Your task to perform on an android device: Is it going to rain tomorrow? Image 0: 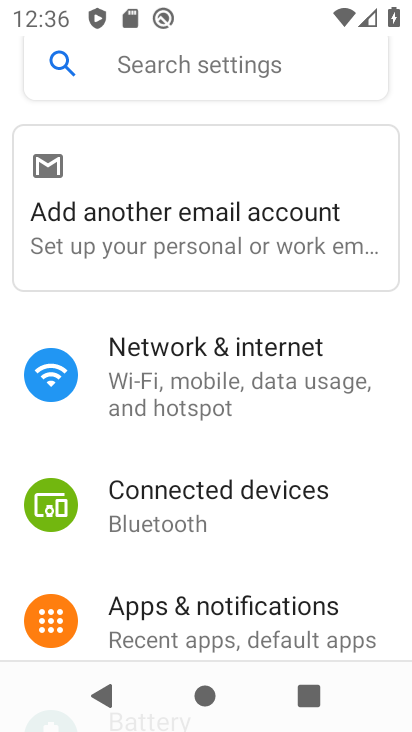
Step 0: press home button
Your task to perform on an android device: Is it going to rain tomorrow? Image 1: 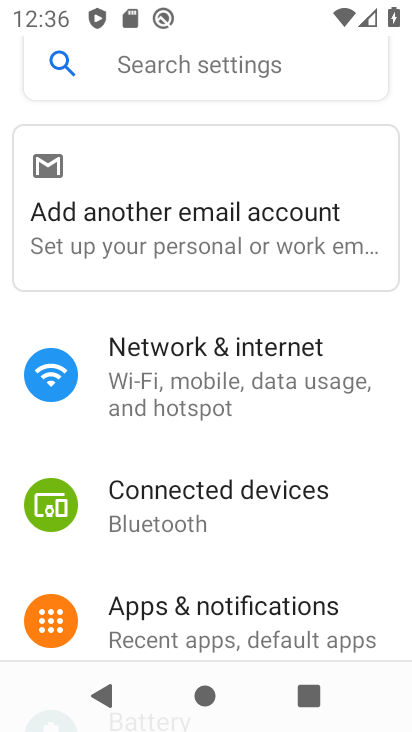
Step 1: press home button
Your task to perform on an android device: Is it going to rain tomorrow? Image 2: 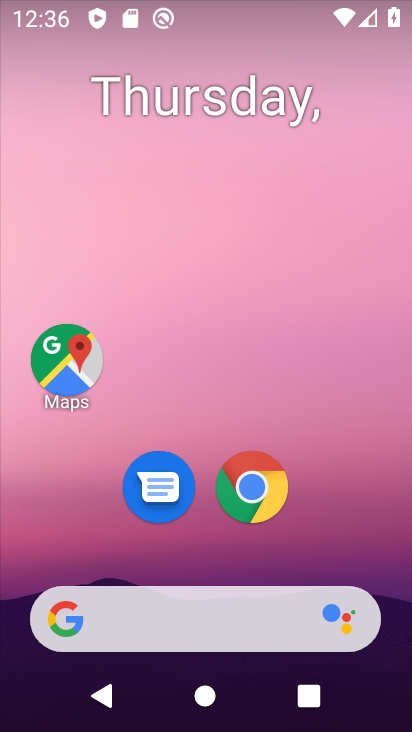
Step 2: click (252, 509)
Your task to perform on an android device: Is it going to rain tomorrow? Image 3: 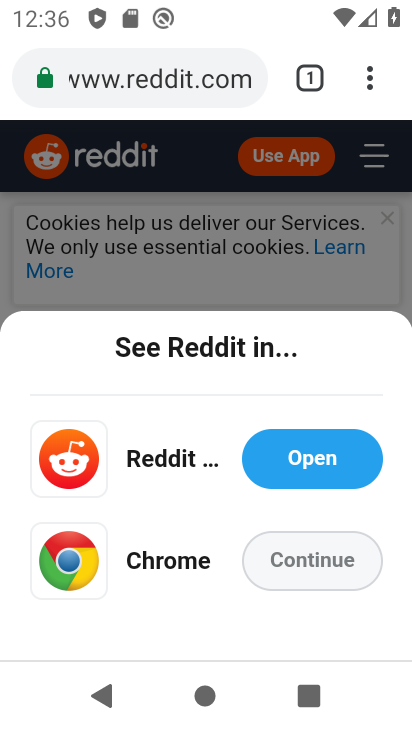
Step 3: click (187, 81)
Your task to perform on an android device: Is it going to rain tomorrow? Image 4: 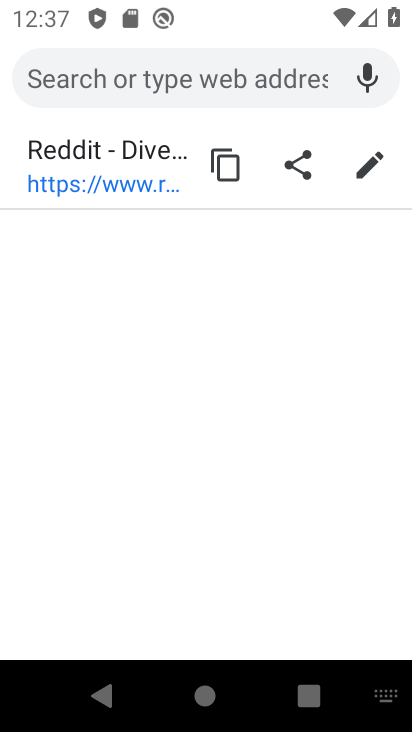
Step 4: click (185, 89)
Your task to perform on an android device: Is it going to rain tomorrow? Image 5: 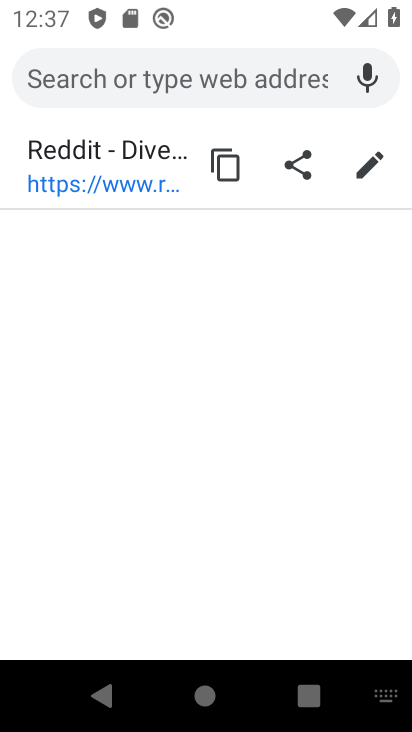
Step 5: type "Is it going to rain tomorrow?"
Your task to perform on an android device: Is it going to rain tomorrow? Image 6: 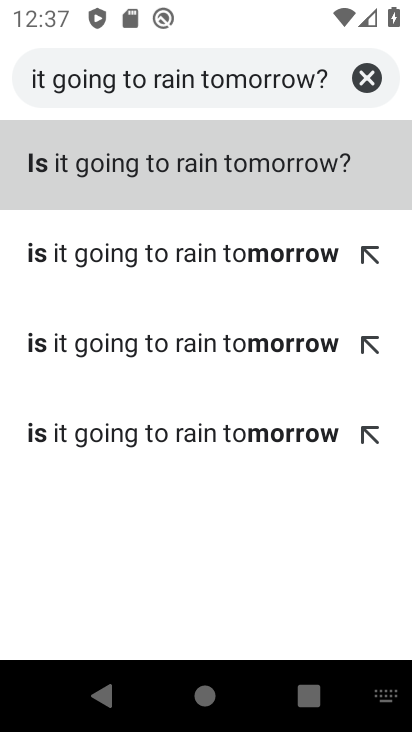
Step 6: click (157, 129)
Your task to perform on an android device: Is it going to rain tomorrow? Image 7: 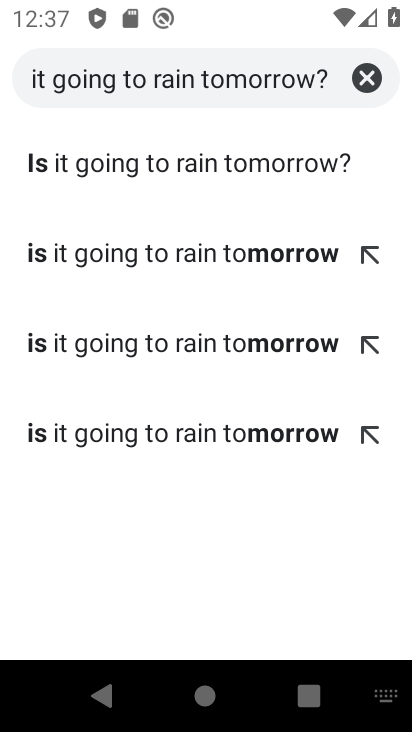
Step 7: click (392, 165)
Your task to perform on an android device: Is it going to rain tomorrow? Image 8: 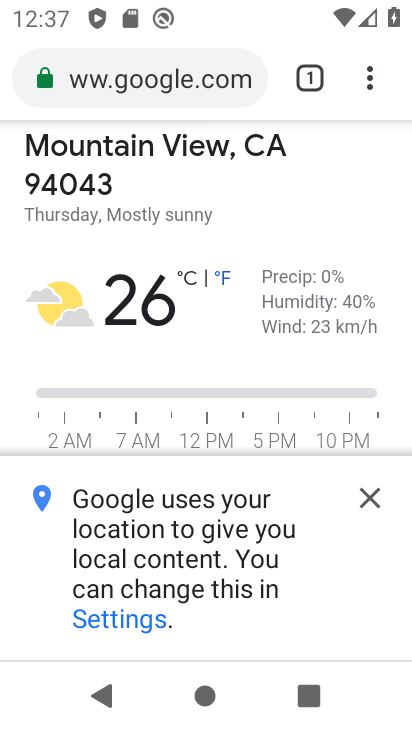
Step 8: task complete